Your task to perform on an android device: add a label to a message in the gmail app Image 0: 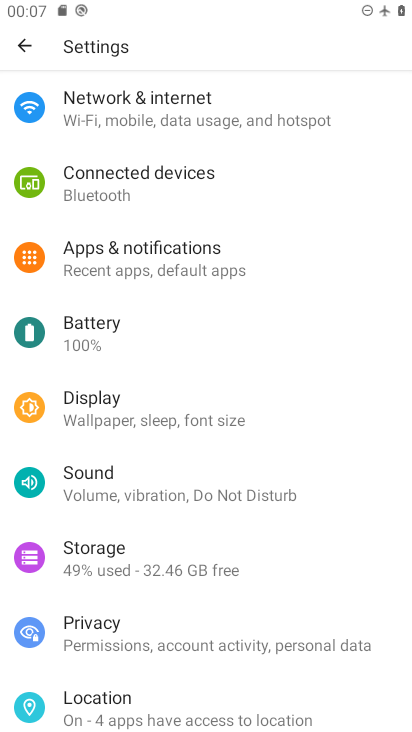
Step 0: press home button
Your task to perform on an android device: add a label to a message in the gmail app Image 1: 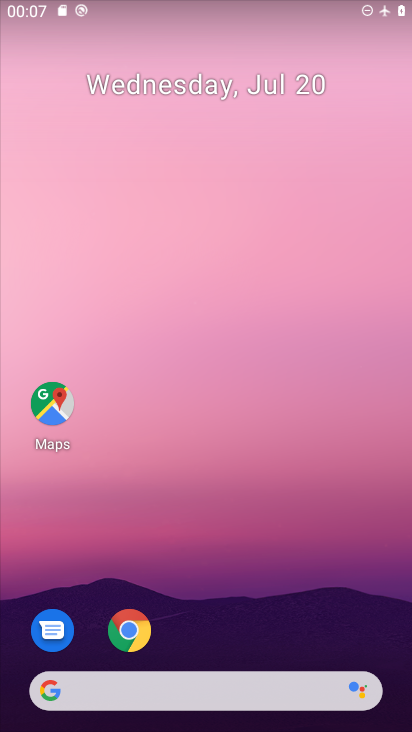
Step 1: drag from (202, 627) to (197, 224)
Your task to perform on an android device: add a label to a message in the gmail app Image 2: 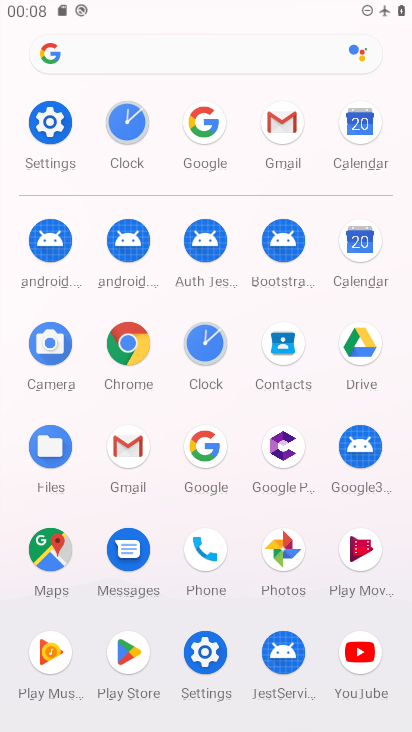
Step 2: click (297, 125)
Your task to perform on an android device: add a label to a message in the gmail app Image 3: 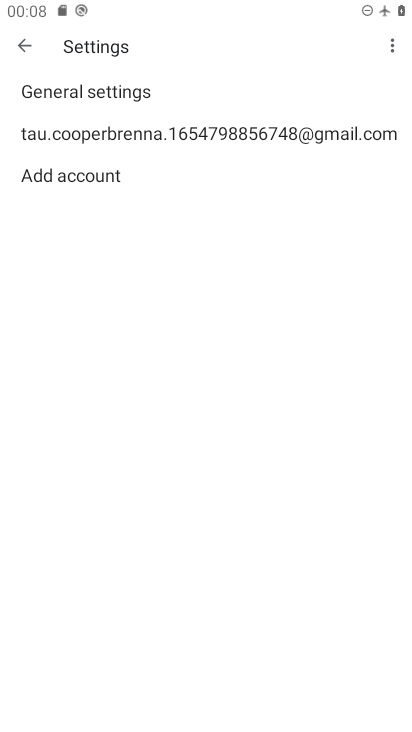
Step 3: click (10, 56)
Your task to perform on an android device: add a label to a message in the gmail app Image 4: 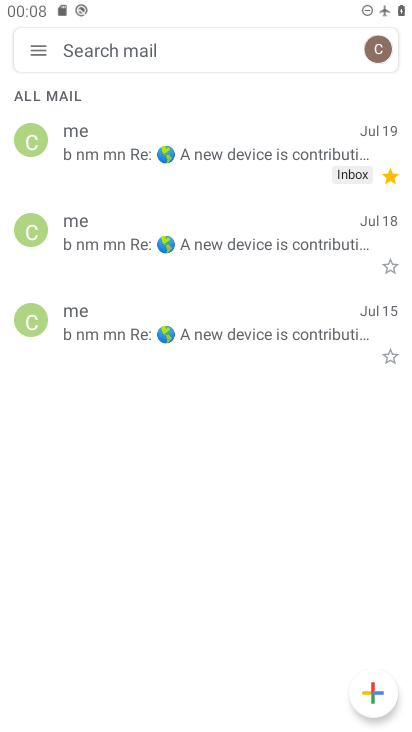
Step 4: click (48, 57)
Your task to perform on an android device: add a label to a message in the gmail app Image 5: 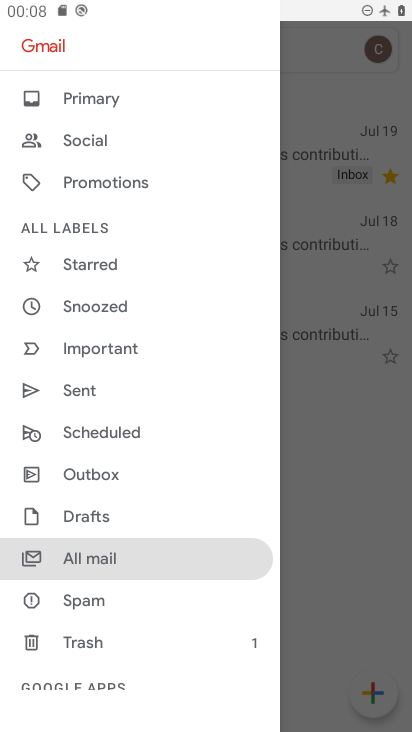
Step 5: click (140, 558)
Your task to perform on an android device: add a label to a message in the gmail app Image 6: 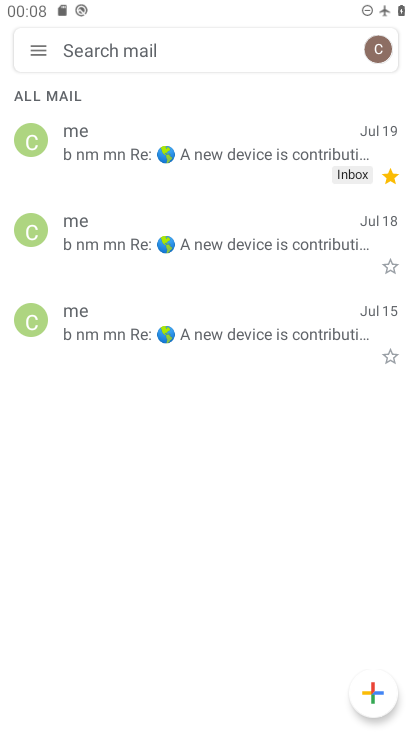
Step 6: click (259, 169)
Your task to perform on an android device: add a label to a message in the gmail app Image 7: 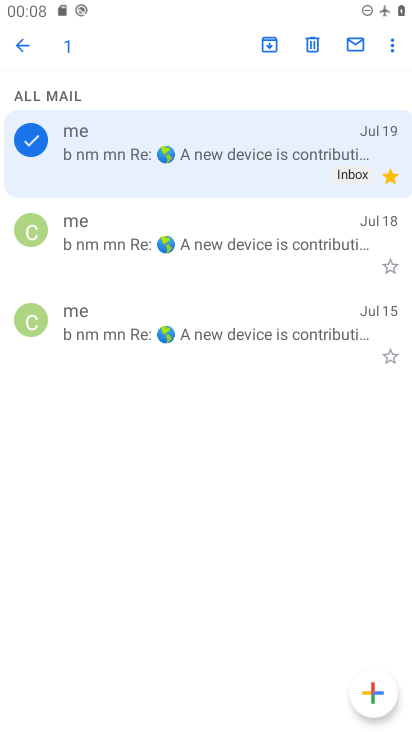
Step 7: click (399, 59)
Your task to perform on an android device: add a label to a message in the gmail app Image 8: 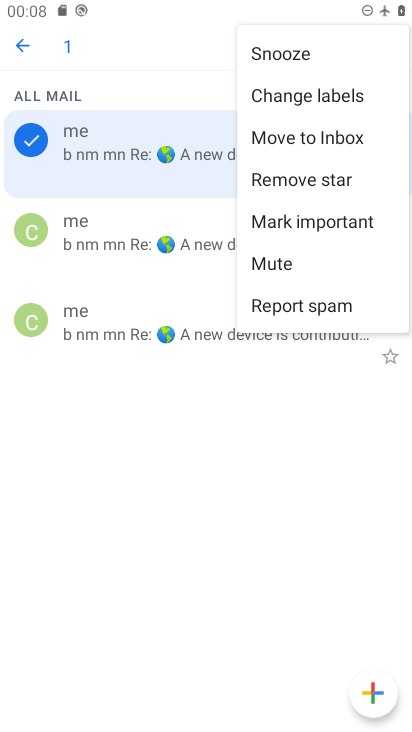
Step 8: click (321, 102)
Your task to perform on an android device: add a label to a message in the gmail app Image 9: 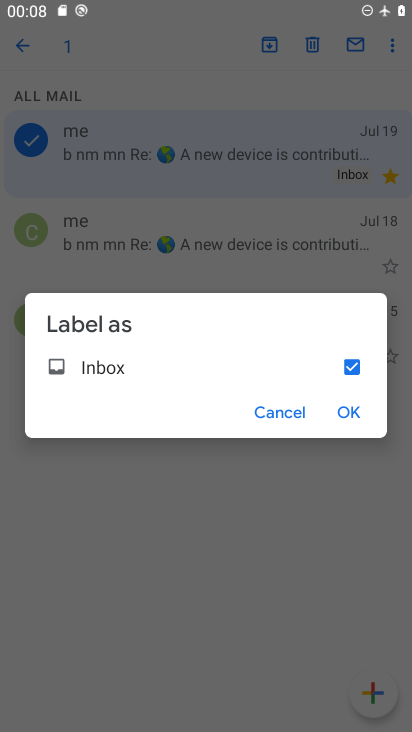
Step 9: click (344, 416)
Your task to perform on an android device: add a label to a message in the gmail app Image 10: 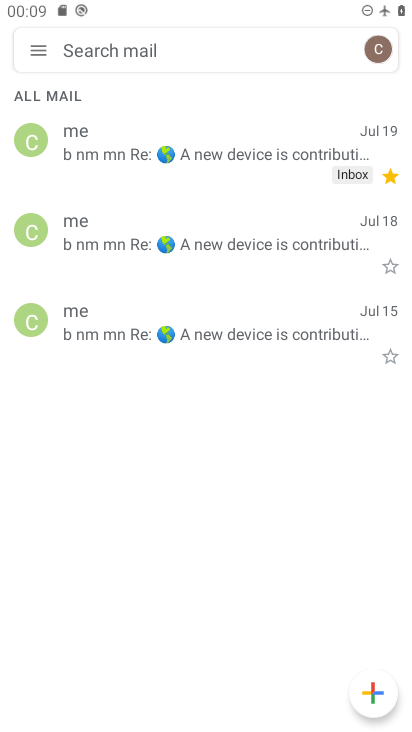
Step 10: task complete